Your task to perform on an android device: Go to wifi settings Image 0: 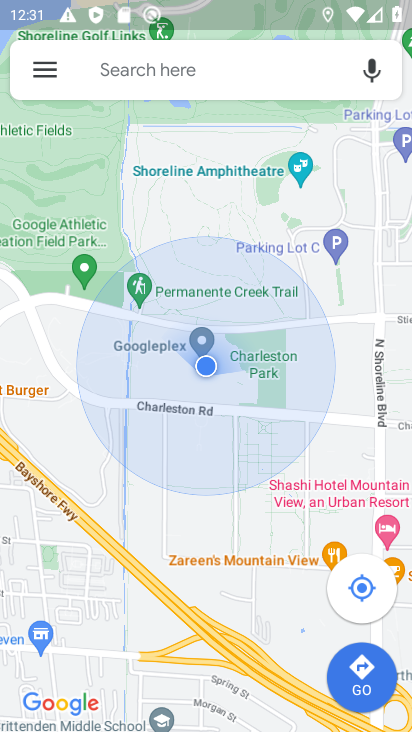
Step 0: press home button
Your task to perform on an android device: Go to wifi settings Image 1: 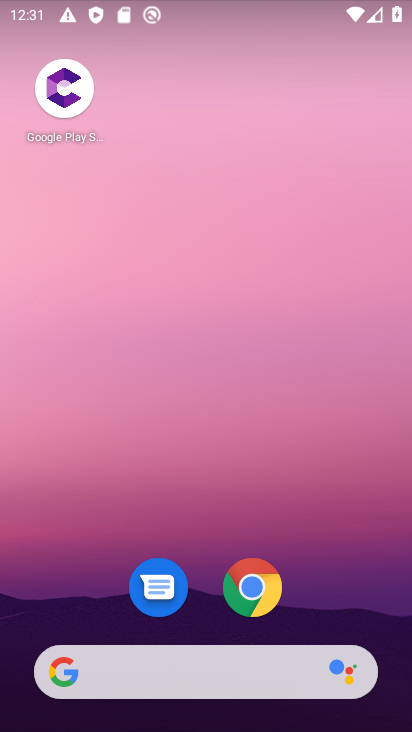
Step 1: drag from (249, 15) to (237, 434)
Your task to perform on an android device: Go to wifi settings Image 2: 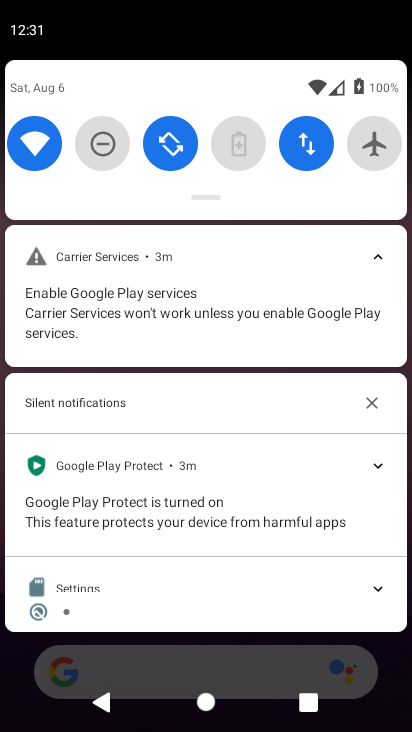
Step 2: click (29, 136)
Your task to perform on an android device: Go to wifi settings Image 3: 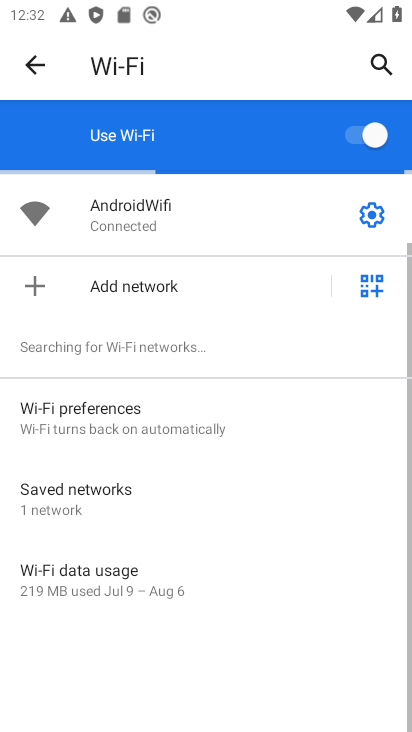
Step 3: task complete